Your task to perform on an android device: Go to network settings Image 0: 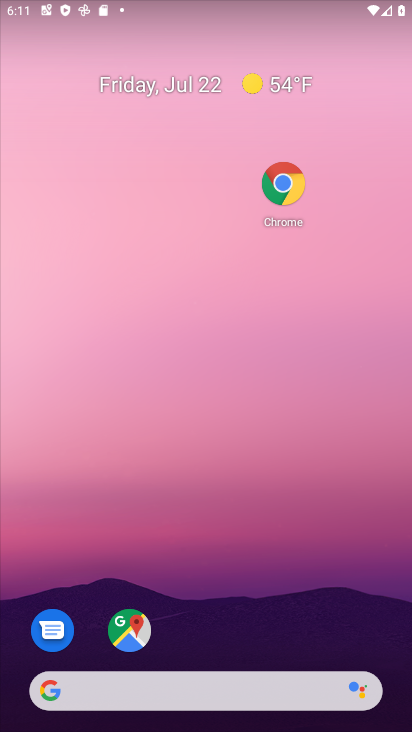
Step 0: drag from (161, 511) to (139, 324)
Your task to perform on an android device: Go to network settings Image 1: 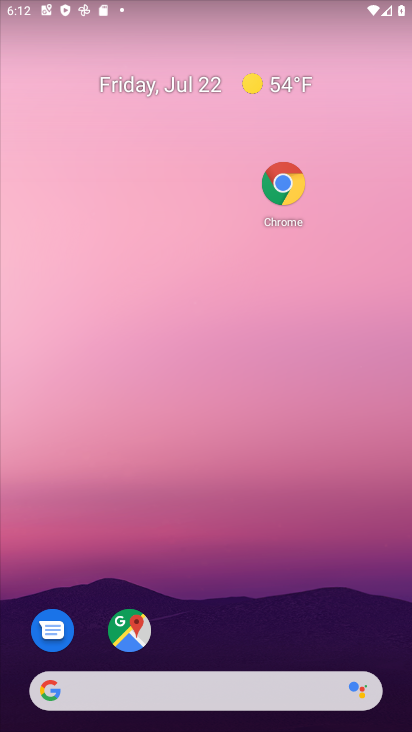
Step 1: click (196, 2)
Your task to perform on an android device: Go to network settings Image 2: 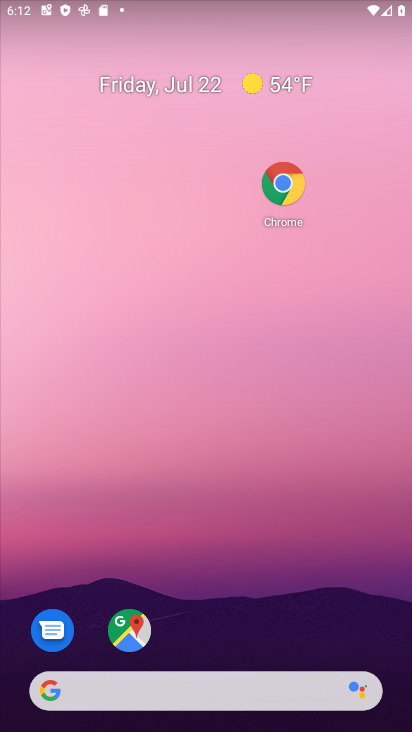
Step 2: click (132, 211)
Your task to perform on an android device: Go to network settings Image 3: 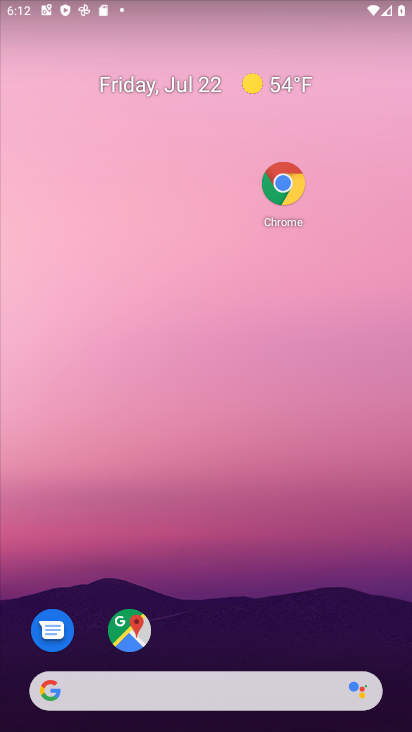
Step 3: drag from (168, 386) to (190, 67)
Your task to perform on an android device: Go to network settings Image 4: 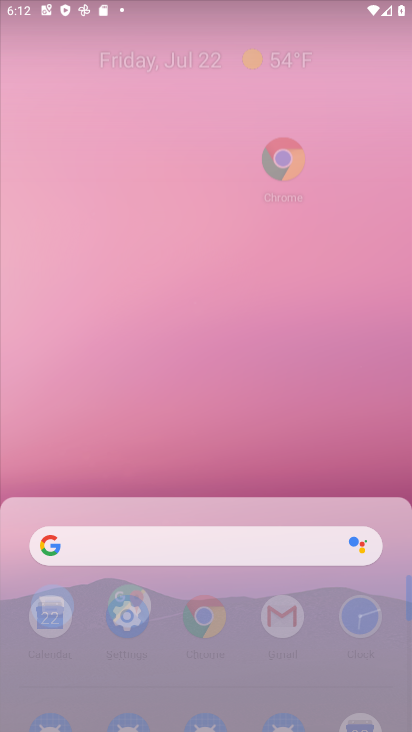
Step 4: drag from (193, 533) to (263, 292)
Your task to perform on an android device: Go to network settings Image 5: 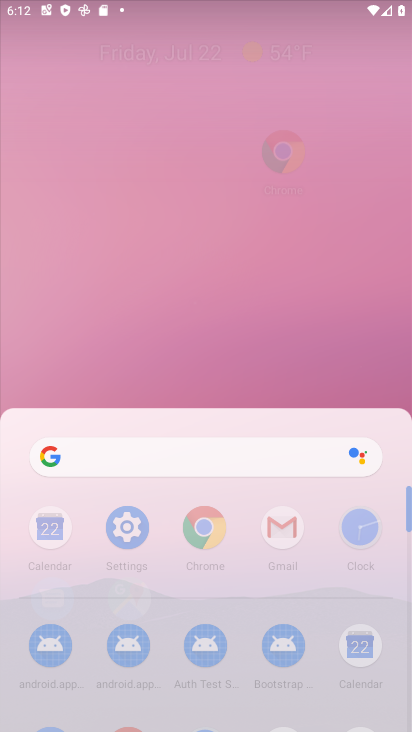
Step 5: drag from (191, 329) to (202, 155)
Your task to perform on an android device: Go to network settings Image 6: 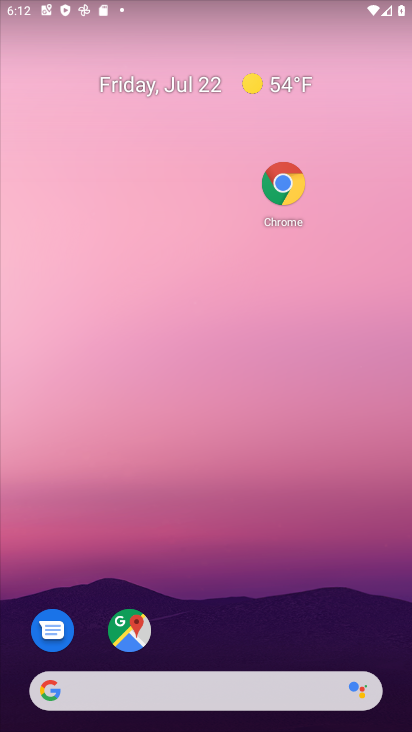
Step 6: drag from (288, 562) to (282, 48)
Your task to perform on an android device: Go to network settings Image 7: 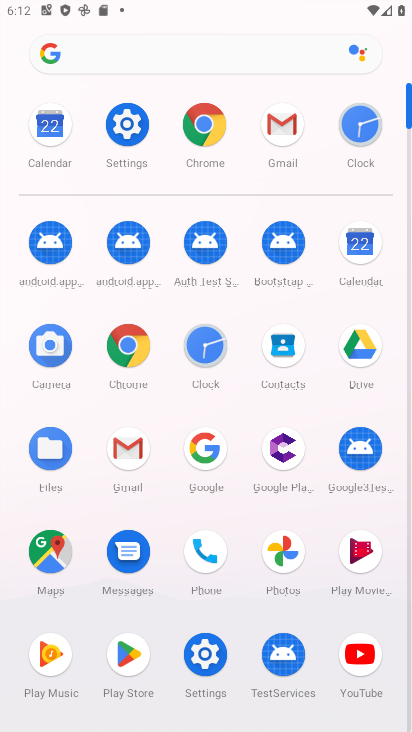
Step 7: click (136, 127)
Your task to perform on an android device: Go to network settings Image 8: 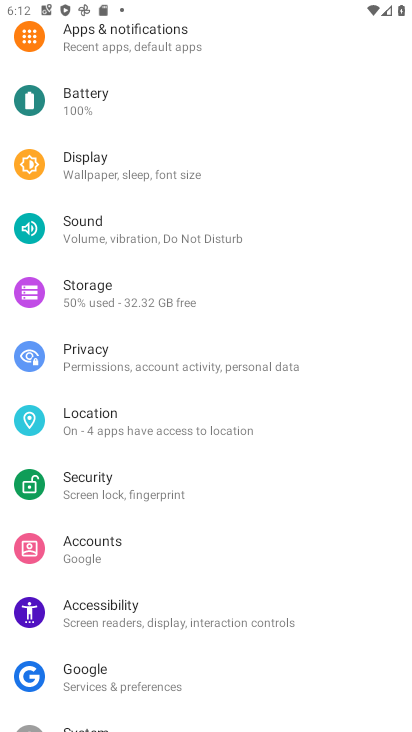
Step 8: drag from (134, 130) to (114, 318)
Your task to perform on an android device: Go to network settings Image 9: 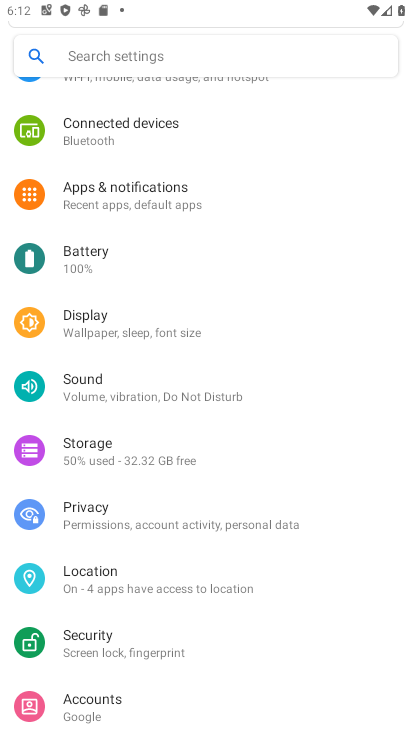
Step 9: drag from (132, 178) to (123, 315)
Your task to perform on an android device: Go to network settings Image 10: 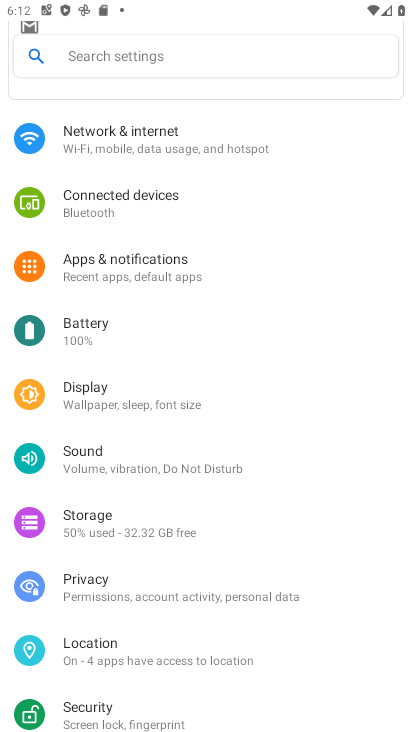
Step 10: click (94, 143)
Your task to perform on an android device: Go to network settings Image 11: 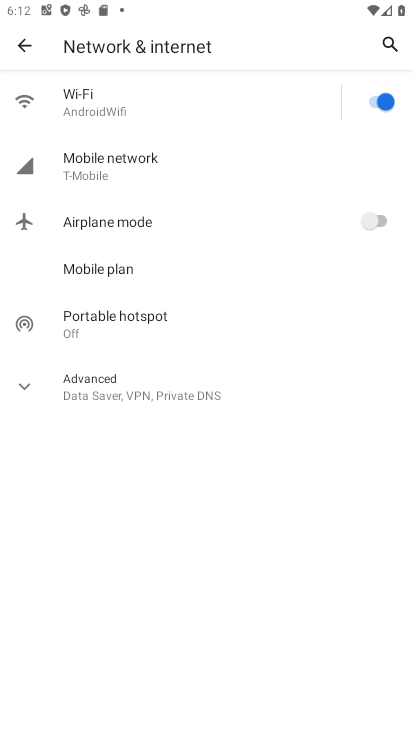
Step 11: task complete